Your task to perform on an android device: uninstall "Cash App" Image 0: 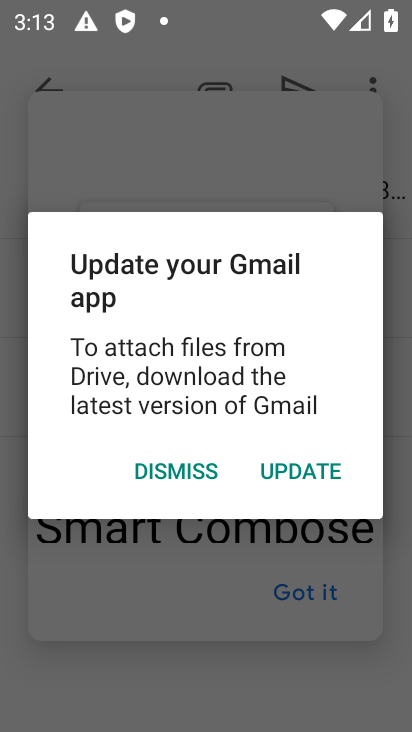
Step 0: press home button
Your task to perform on an android device: uninstall "Cash App" Image 1: 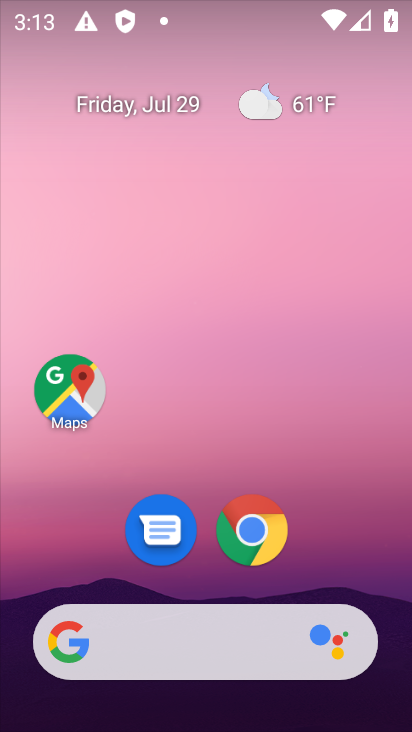
Step 1: drag from (291, 559) to (319, 42)
Your task to perform on an android device: uninstall "Cash App" Image 2: 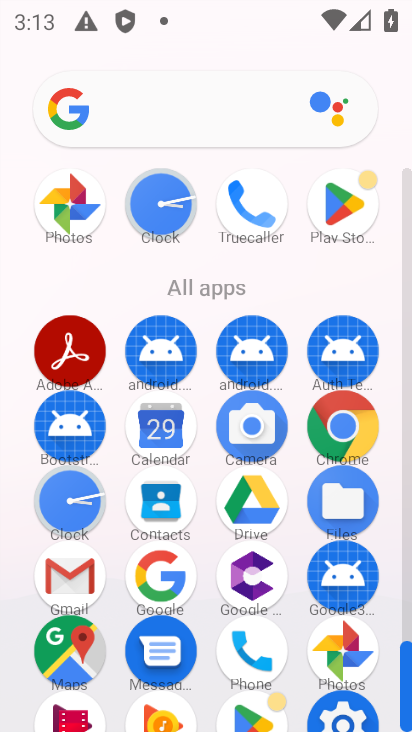
Step 2: click (345, 201)
Your task to perform on an android device: uninstall "Cash App" Image 3: 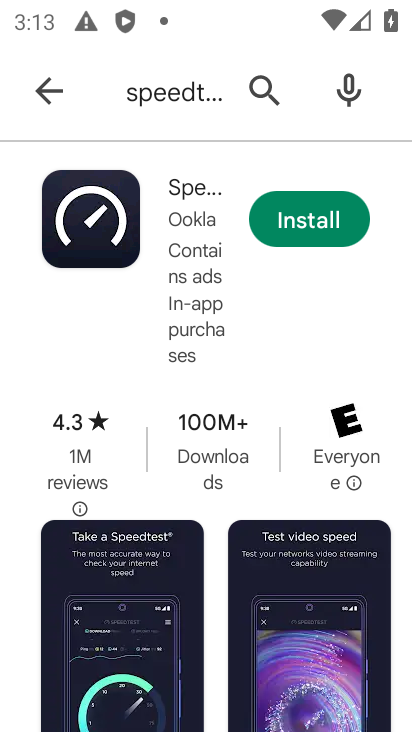
Step 3: click (263, 89)
Your task to perform on an android device: uninstall "Cash App" Image 4: 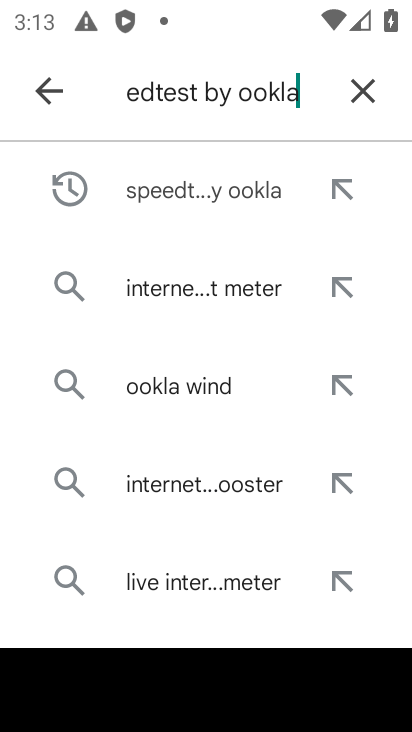
Step 4: click (361, 94)
Your task to perform on an android device: uninstall "Cash App" Image 5: 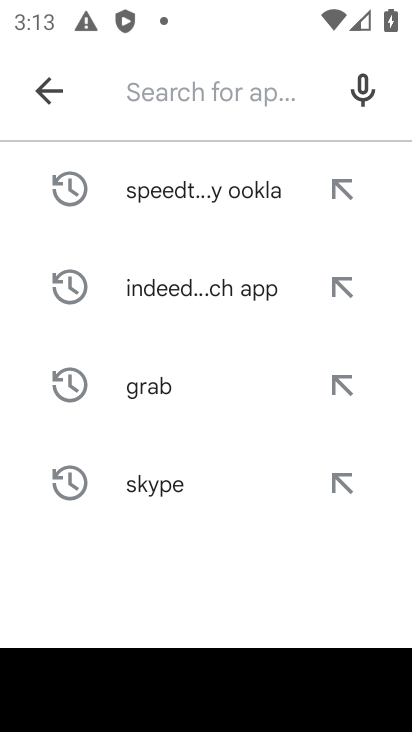
Step 5: type "Cash App"
Your task to perform on an android device: uninstall "Cash App" Image 6: 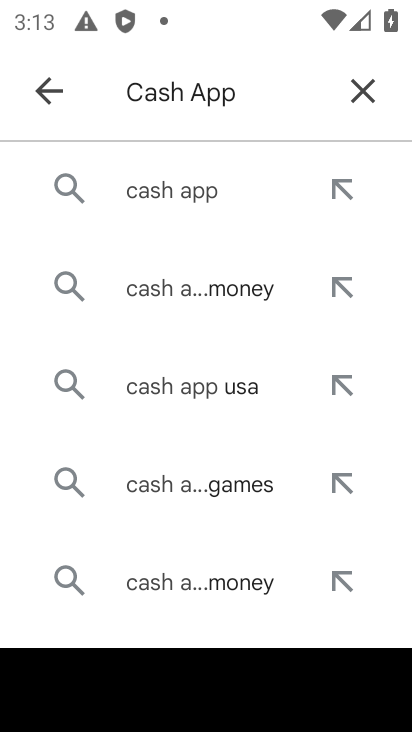
Step 6: click (186, 202)
Your task to perform on an android device: uninstall "Cash App" Image 7: 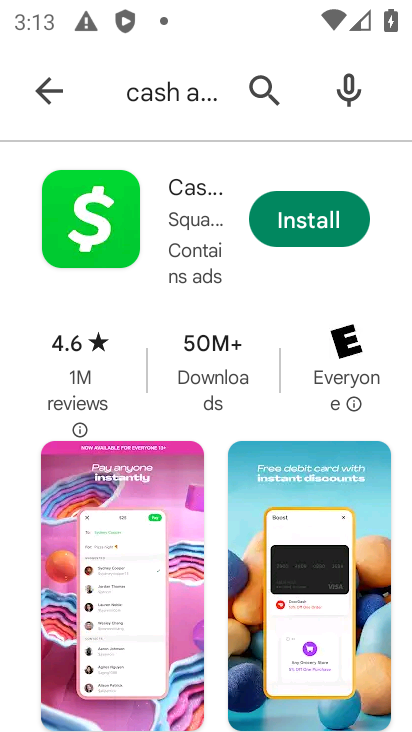
Step 7: task complete